Your task to perform on an android device: Go to privacy settings Image 0: 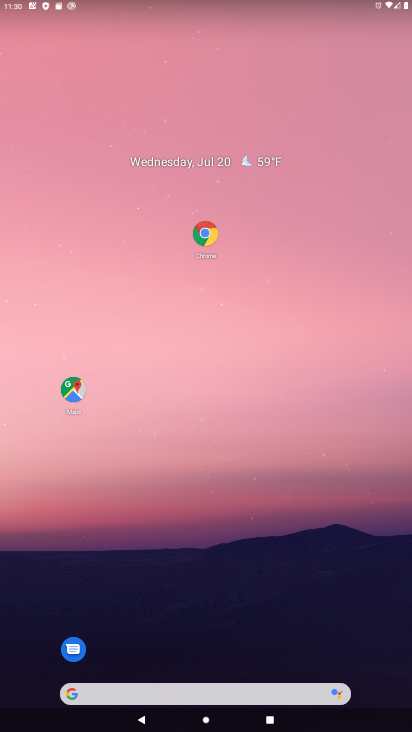
Step 0: drag from (163, 653) to (220, 135)
Your task to perform on an android device: Go to privacy settings Image 1: 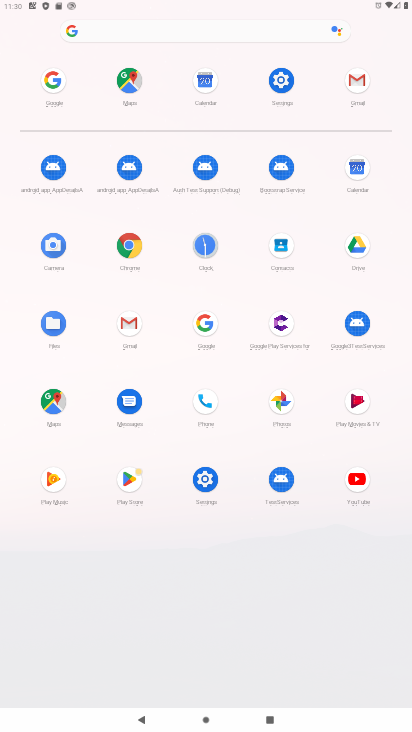
Step 1: click (282, 83)
Your task to perform on an android device: Go to privacy settings Image 2: 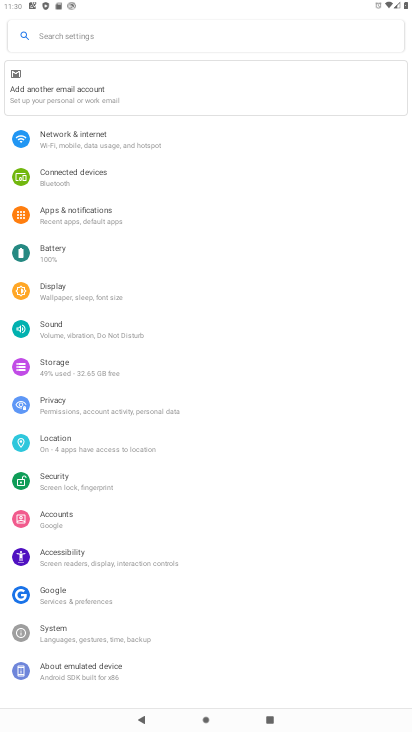
Step 2: click (74, 402)
Your task to perform on an android device: Go to privacy settings Image 3: 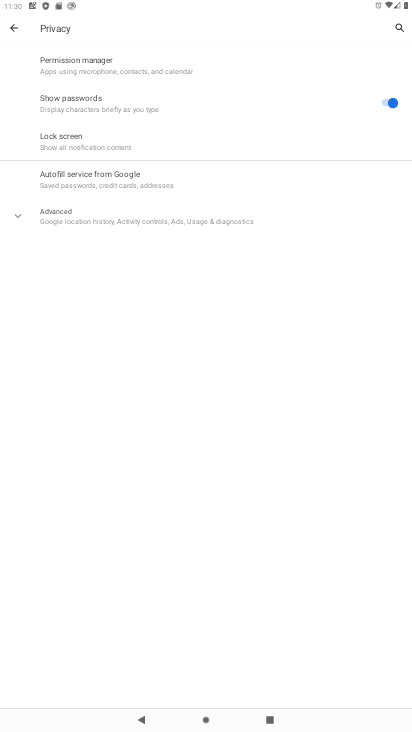
Step 3: task complete